Your task to perform on an android device: Turn off the flashlight Image 0: 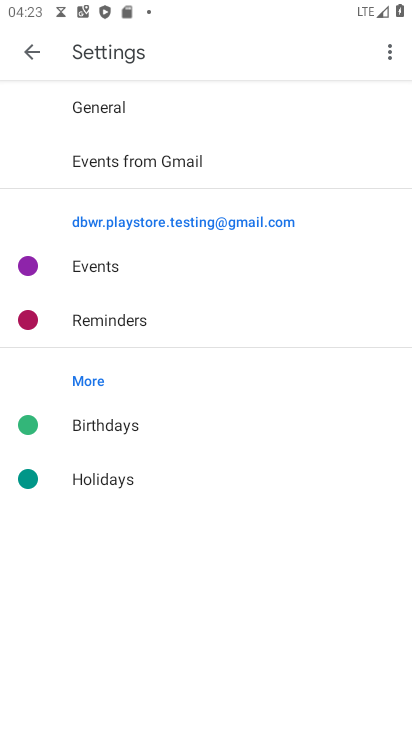
Step 0: press back button
Your task to perform on an android device: Turn off the flashlight Image 1: 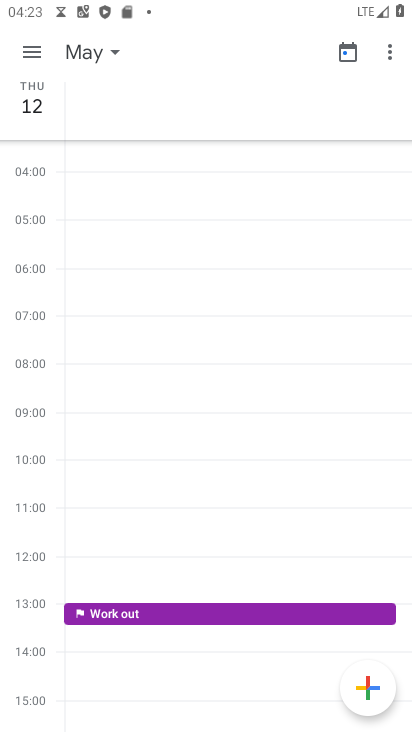
Step 1: press back button
Your task to perform on an android device: Turn off the flashlight Image 2: 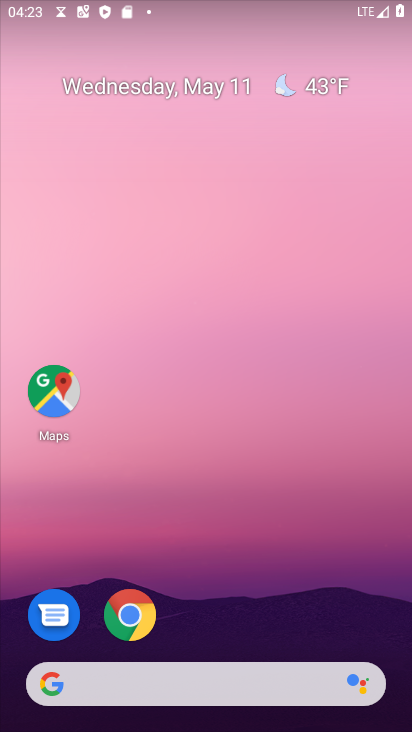
Step 2: drag from (271, 482) to (247, 23)
Your task to perform on an android device: Turn off the flashlight Image 3: 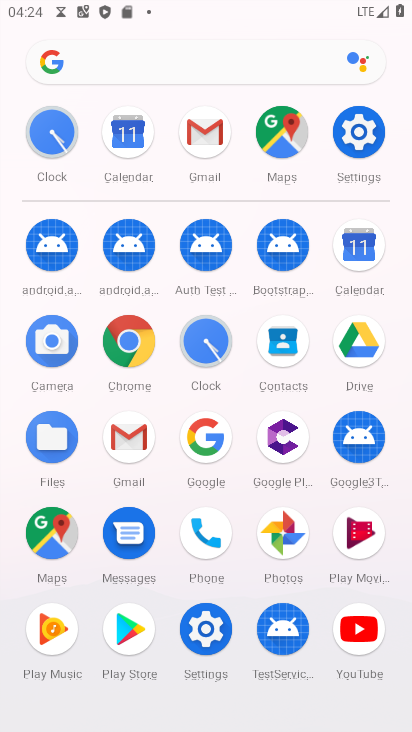
Step 3: click (364, 131)
Your task to perform on an android device: Turn off the flashlight Image 4: 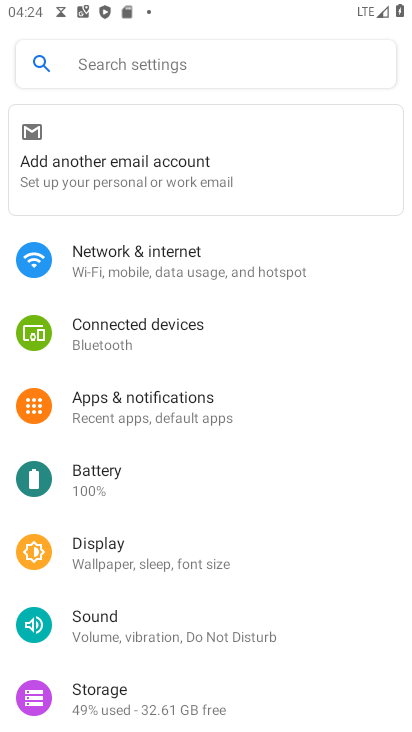
Step 4: click (194, 255)
Your task to perform on an android device: Turn off the flashlight Image 5: 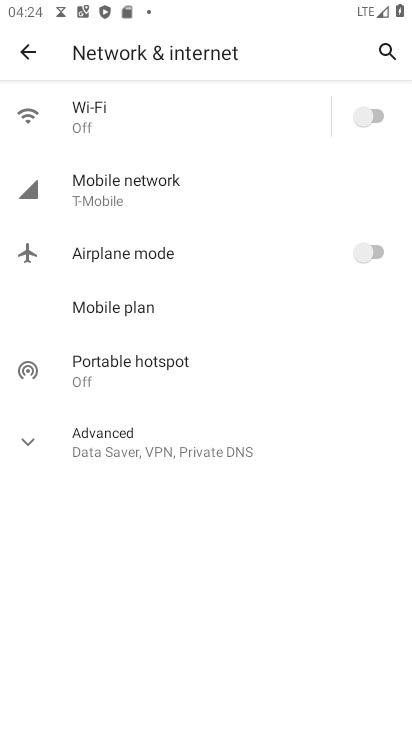
Step 5: click (41, 436)
Your task to perform on an android device: Turn off the flashlight Image 6: 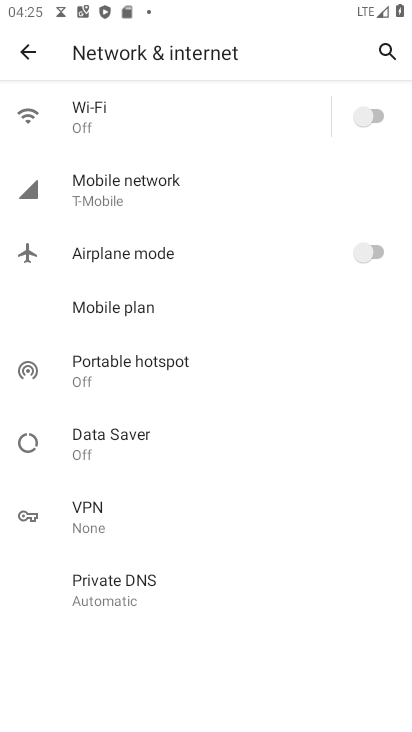
Step 6: task complete